Your task to perform on an android device: Search for Mexican restaurants on Maps Image 0: 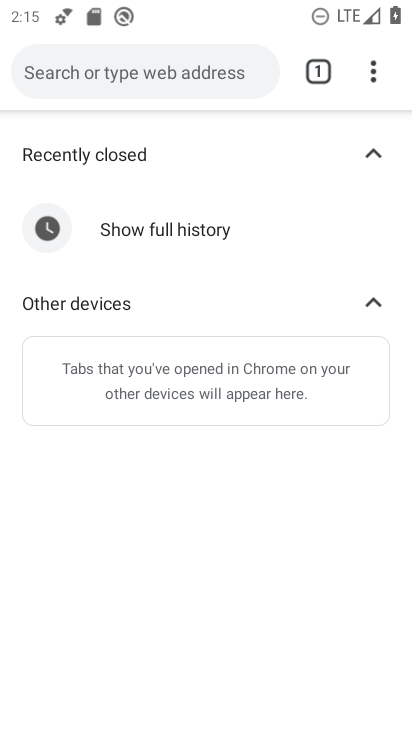
Step 0: press home button
Your task to perform on an android device: Search for Mexican restaurants on Maps Image 1: 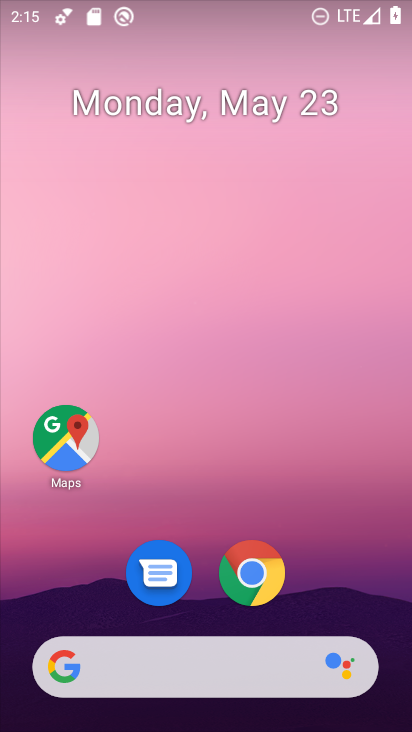
Step 1: click (66, 426)
Your task to perform on an android device: Search for Mexican restaurants on Maps Image 2: 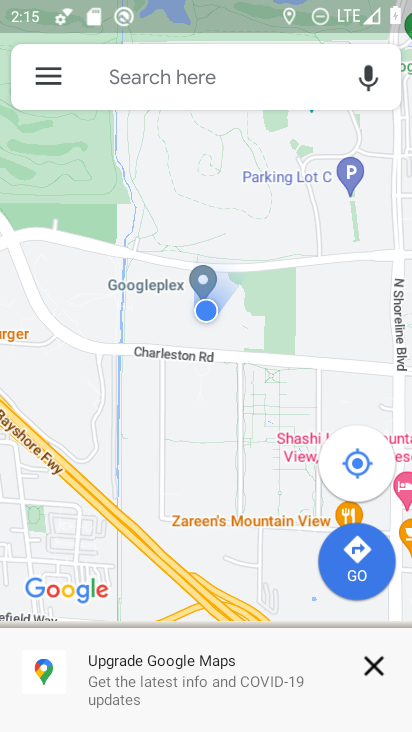
Step 2: click (174, 87)
Your task to perform on an android device: Search for Mexican restaurants on Maps Image 3: 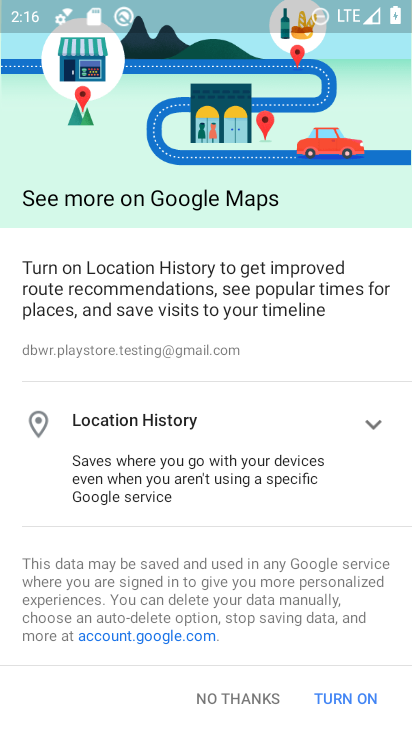
Step 3: click (211, 685)
Your task to perform on an android device: Search for Mexican restaurants on Maps Image 4: 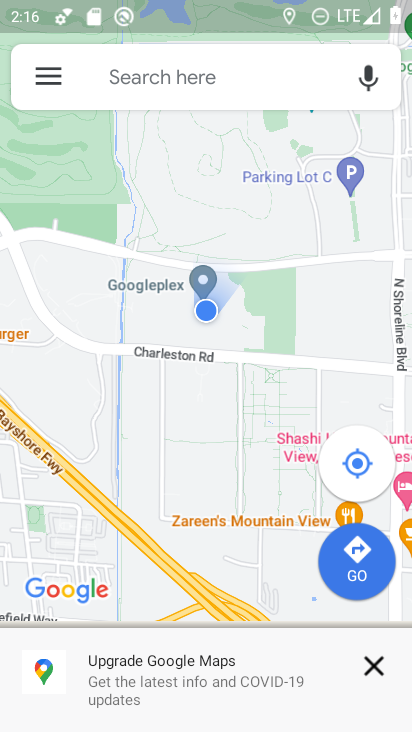
Step 4: click (220, 81)
Your task to perform on an android device: Search for Mexican restaurants on Maps Image 5: 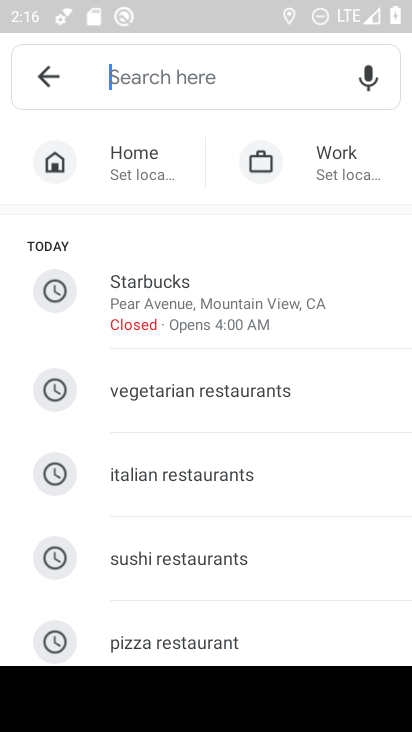
Step 5: type "Mexican restaurants"
Your task to perform on an android device: Search for Mexican restaurants on Maps Image 6: 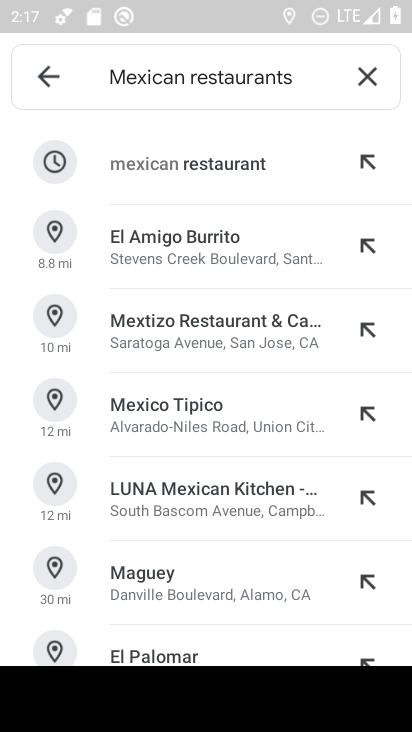
Step 6: task complete